Your task to perform on an android device: Open Chrome and go to settings Image 0: 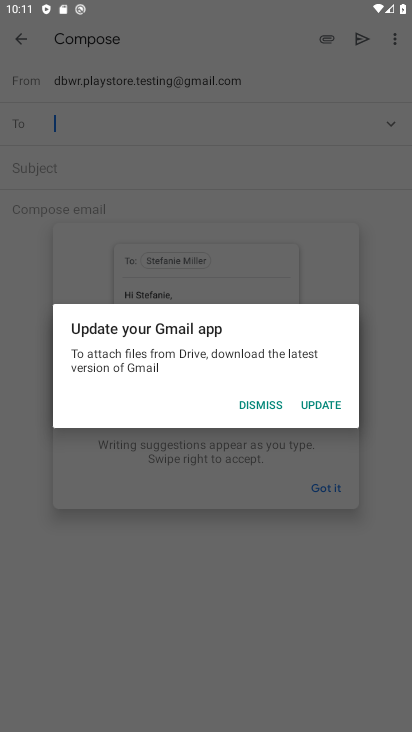
Step 0: press home button
Your task to perform on an android device: Open Chrome and go to settings Image 1: 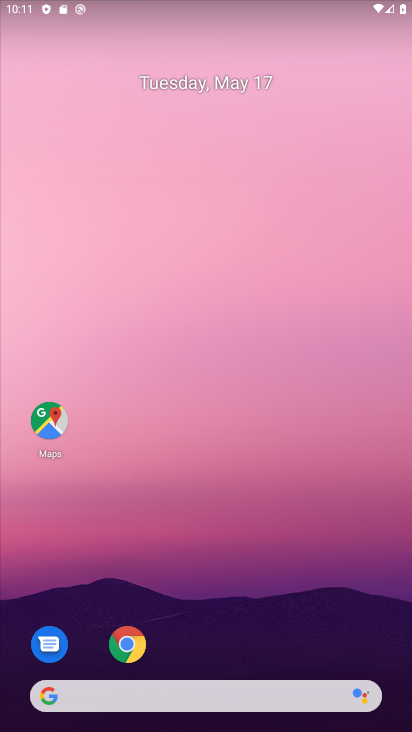
Step 1: click (118, 655)
Your task to perform on an android device: Open Chrome and go to settings Image 2: 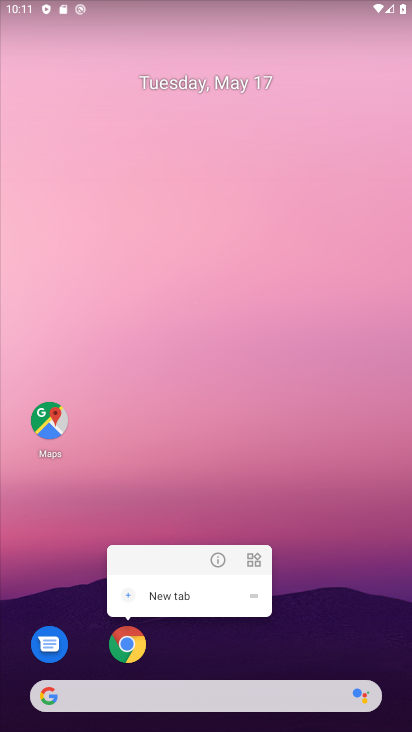
Step 2: click (118, 655)
Your task to perform on an android device: Open Chrome and go to settings Image 3: 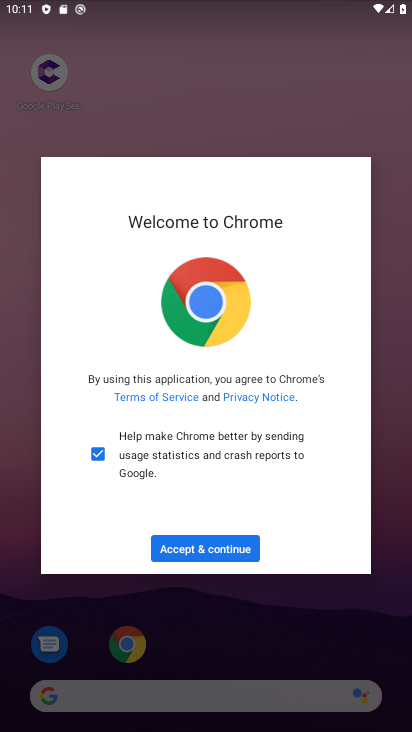
Step 3: click (251, 545)
Your task to perform on an android device: Open Chrome and go to settings Image 4: 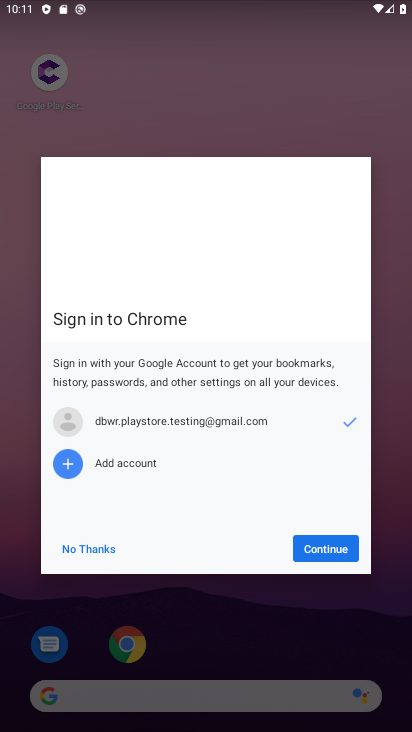
Step 4: click (314, 555)
Your task to perform on an android device: Open Chrome and go to settings Image 5: 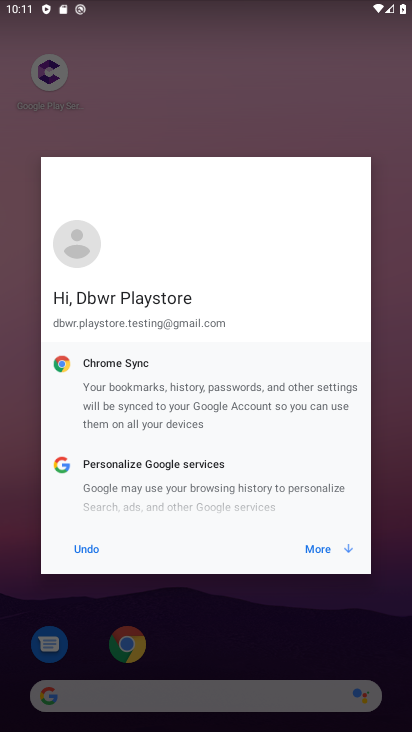
Step 5: click (314, 555)
Your task to perform on an android device: Open Chrome and go to settings Image 6: 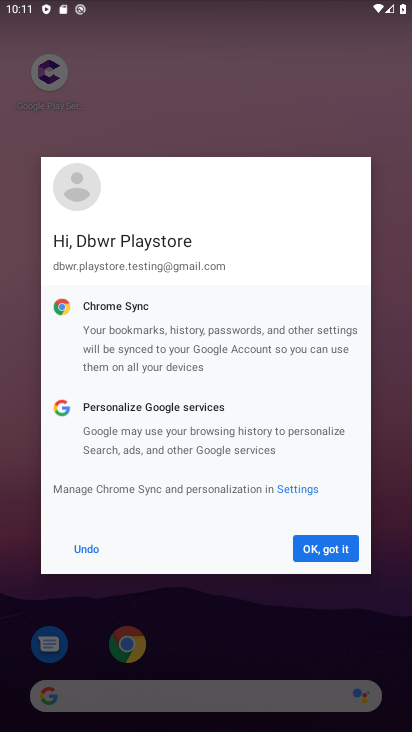
Step 6: click (314, 555)
Your task to perform on an android device: Open Chrome and go to settings Image 7: 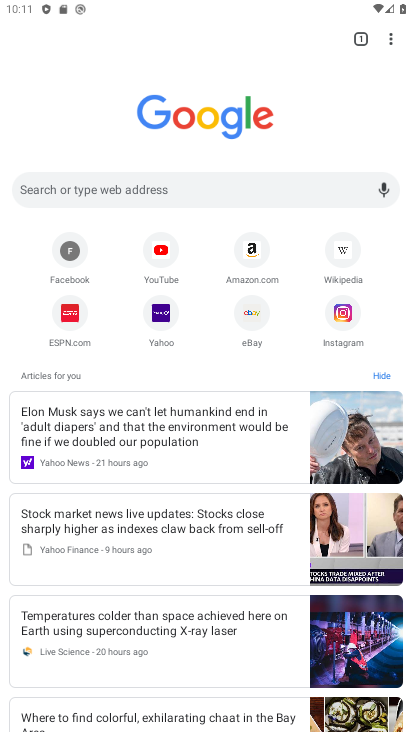
Step 7: task complete